Your task to perform on an android device: turn on sleep mode Image 0: 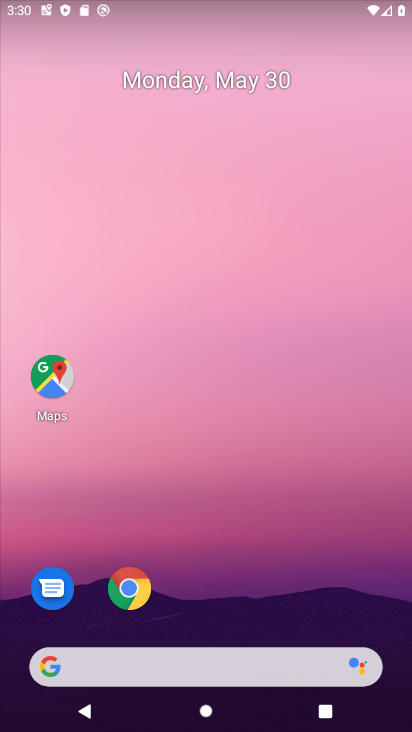
Step 0: drag from (283, 503) to (243, 11)
Your task to perform on an android device: turn on sleep mode Image 1: 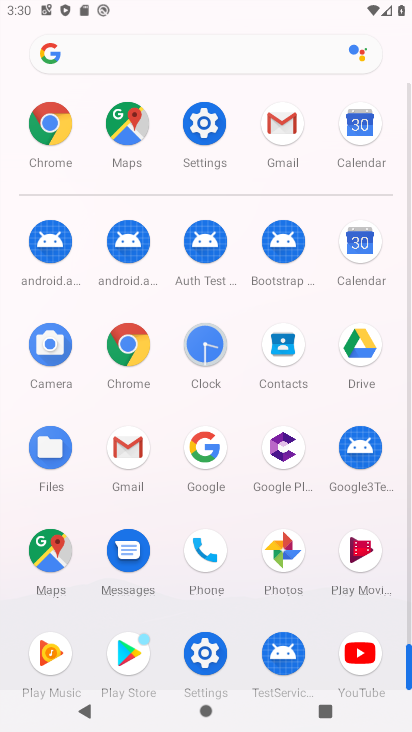
Step 1: drag from (2, 518) to (2, 261)
Your task to perform on an android device: turn on sleep mode Image 2: 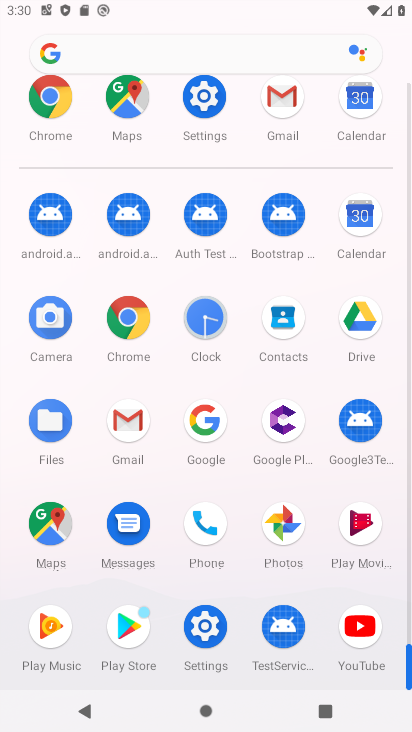
Step 2: click (205, 626)
Your task to perform on an android device: turn on sleep mode Image 3: 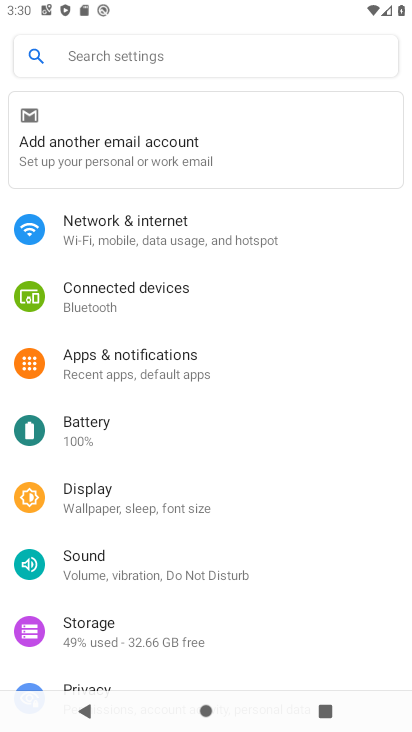
Step 3: click (160, 236)
Your task to perform on an android device: turn on sleep mode Image 4: 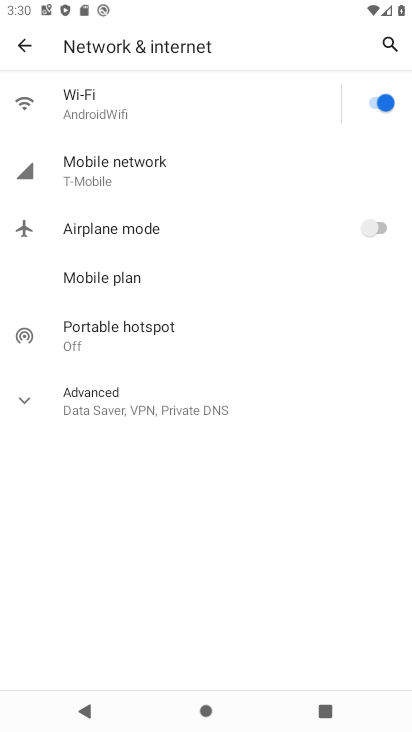
Step 4: click (28, 37)
Your task to perform on an android device: turn on sleep mode Image 5: 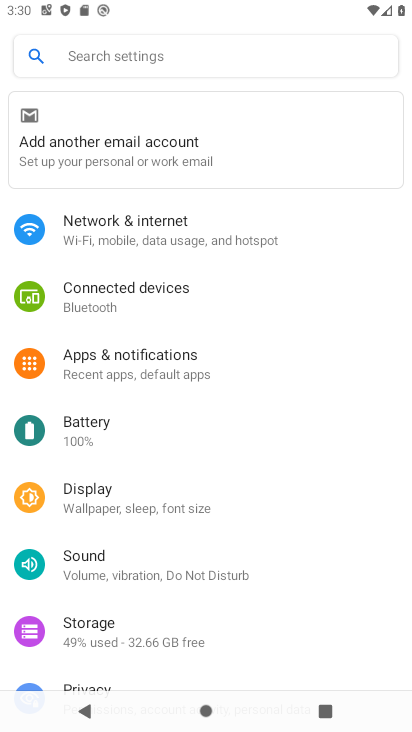
Step 5: click (179, 509)
Your task to perform on an android device: turn on sleep mode Image 6: 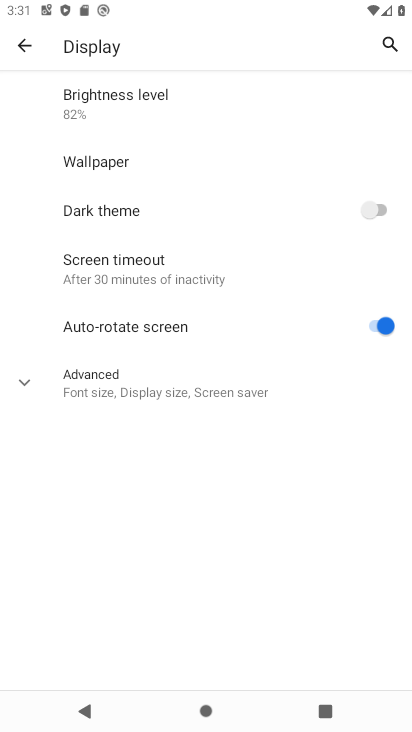
Step 6: click (15, 379)
Your task to perform on an android device: turn on sleep mode Image 7: 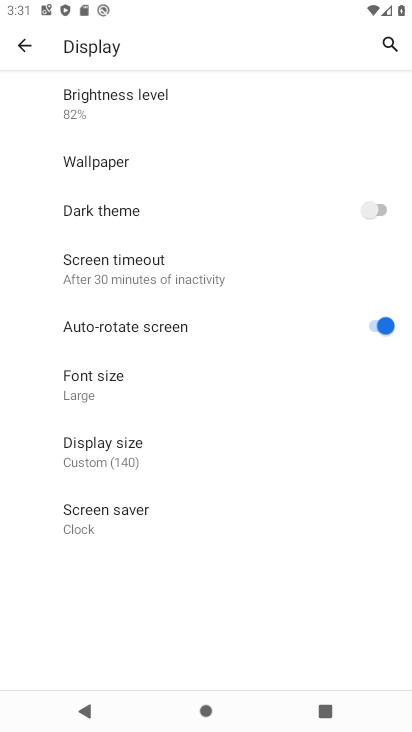
Step 7: task complete